Your task to perform on an android device: add a contact in the contacts app Image 0: 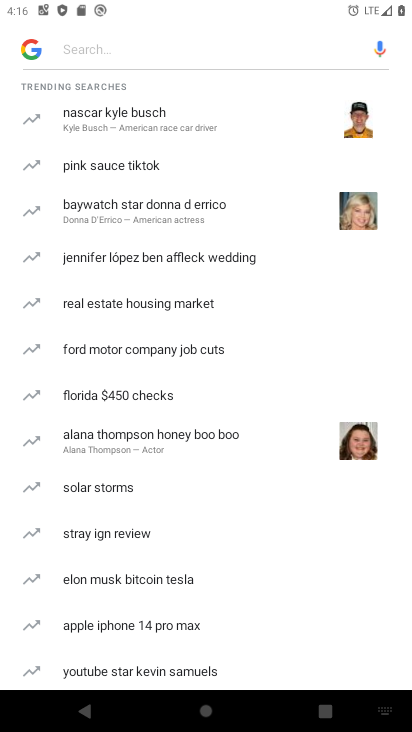
Step 0: press home button
Your task to perform on an android device: add a contact in the contacts app Image 1: 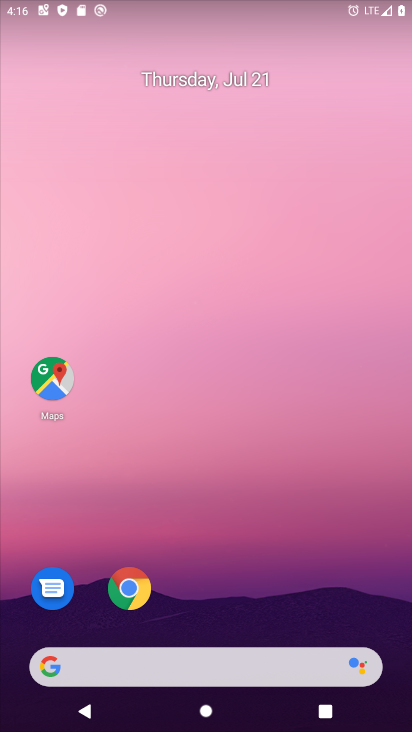
Step 1: drag from (309, 582) to (289, 14)
Your task to perform on an android device: add a contact in the contacts app Image 2: 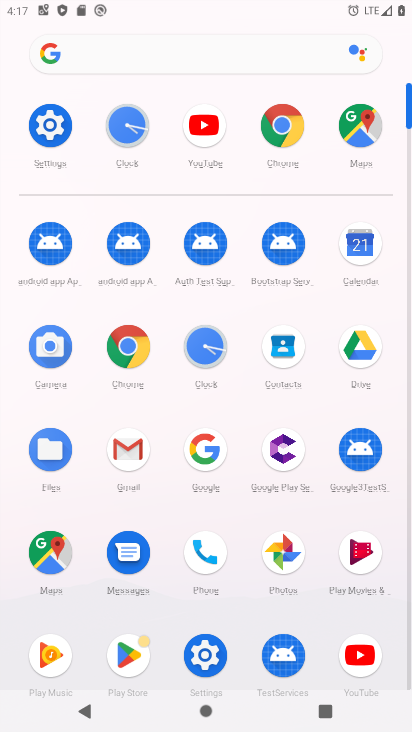
Step 2: click (289, 350)
Your task to perform on an android device: add a contact in the contacts app Image 3: 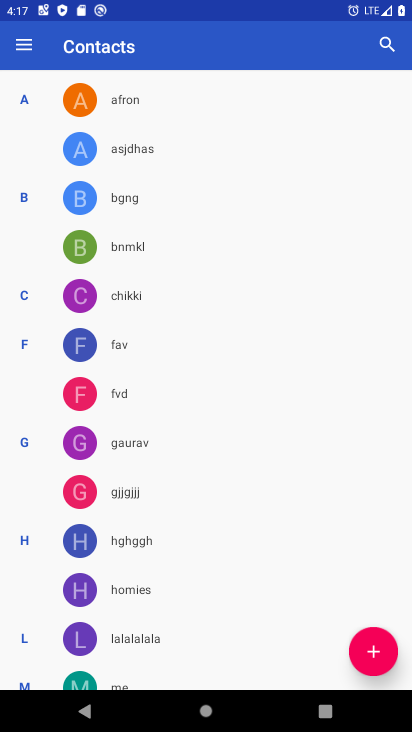
Step 3: click (371, 638)
Your task to perform on an android device: add a contact in the contacts app Image 4: 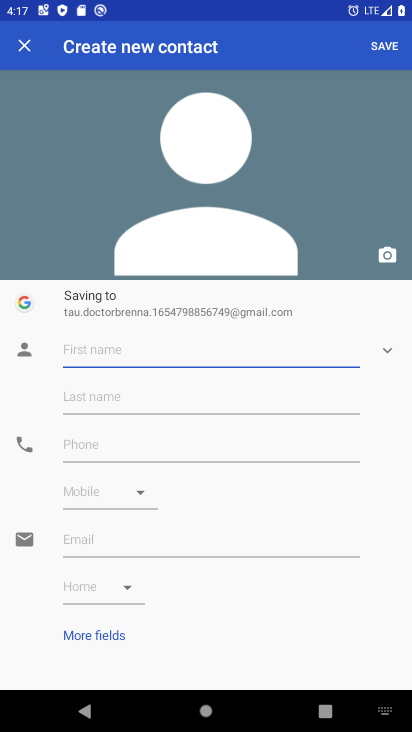
Step 4: type "hbbuu"
Your task to perform on an android device: add a contact in the contacts app Image 5: 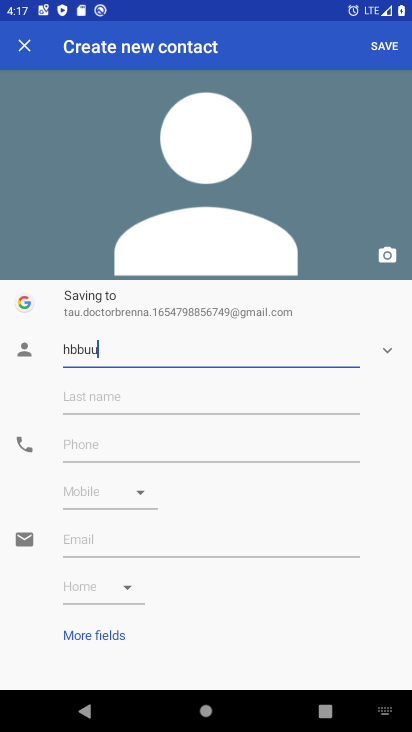
Step 5: click (186, 440)
Your task to perform on an android device: add a contact in the contacts app Image 6: 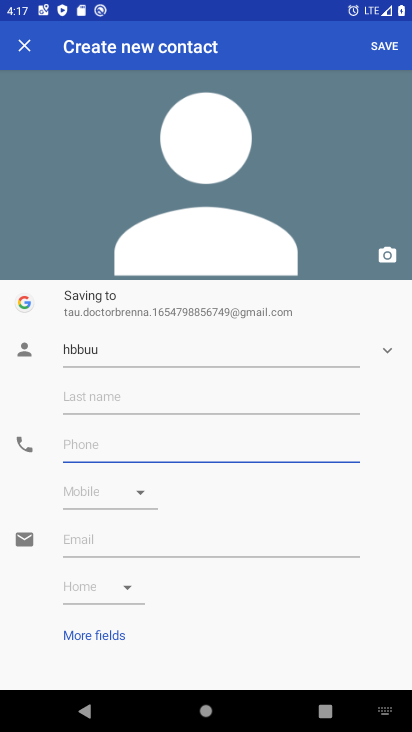
Step 6: type "00563"
Your task to perform on an android device: add a contact in the contacts app Image 7: 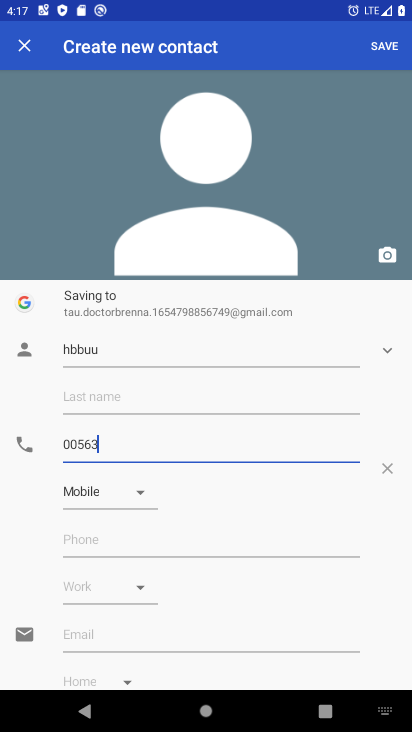
Step 7: click (387, 47)
Your task to perform on an android device: add a contact in the contacts app Image 8: 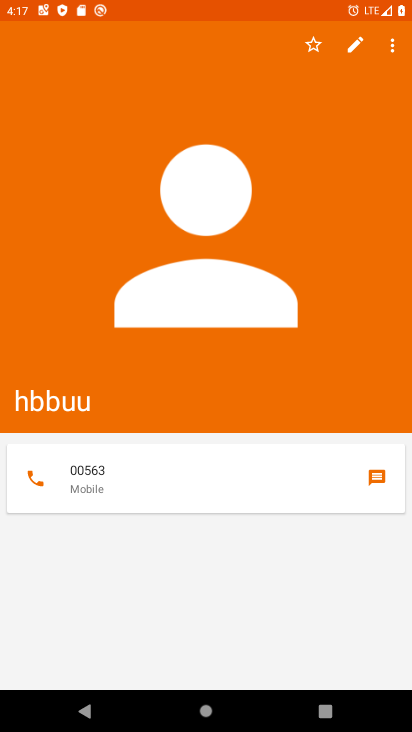
Step 8: task complete